Your task to perform on an android device: Open maps Image 0: 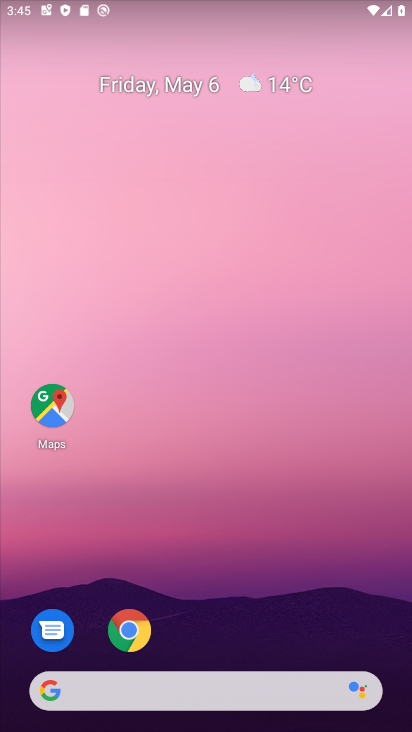
Step 0: click (72, 397)
Your task to perform on an android device: Open maps Image 1: 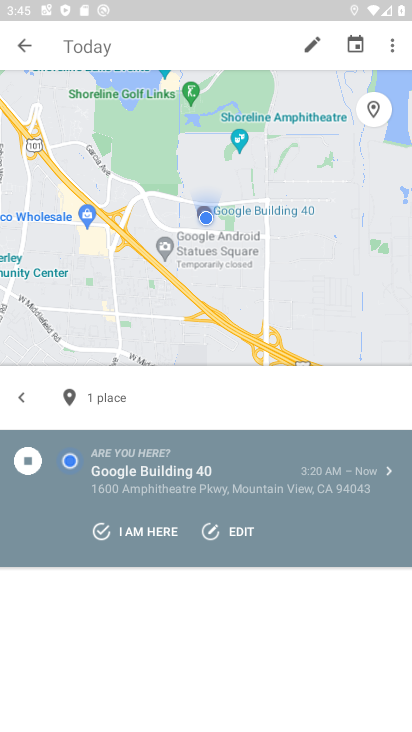
Step 1: task complete